Your task to perform on an android device: toggle improve location accuracy Image 0: 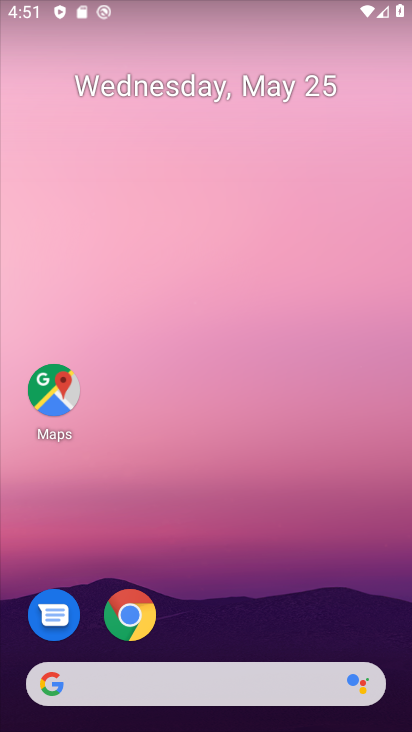
Step 0: press home button
Your task to perform on an android device: toggle improve location accuracy Image 1: 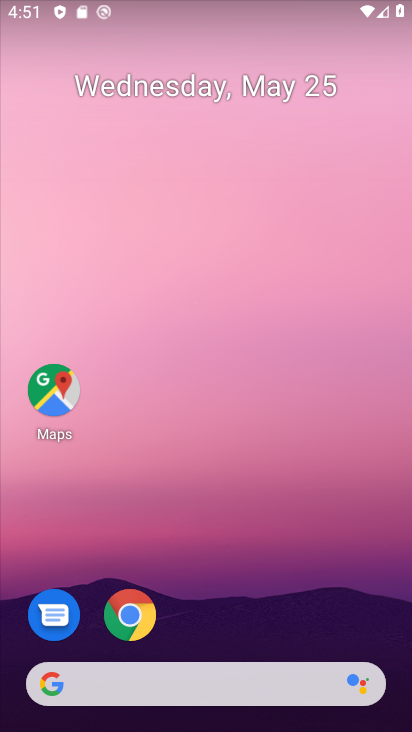
Step 1: drag from (295, 603) to (159, 40)
Your task to perform on an android device: toggle improve location accuracy Image 2: 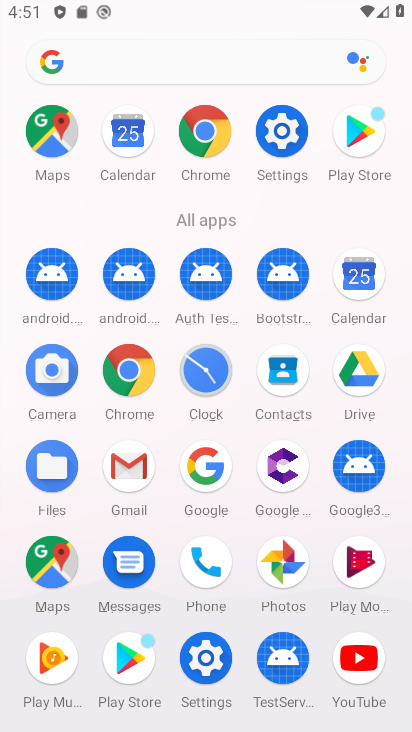
Step 2: click (203, 641)
Your task to perform on an android device: toggle improve location accuracy Image 3: 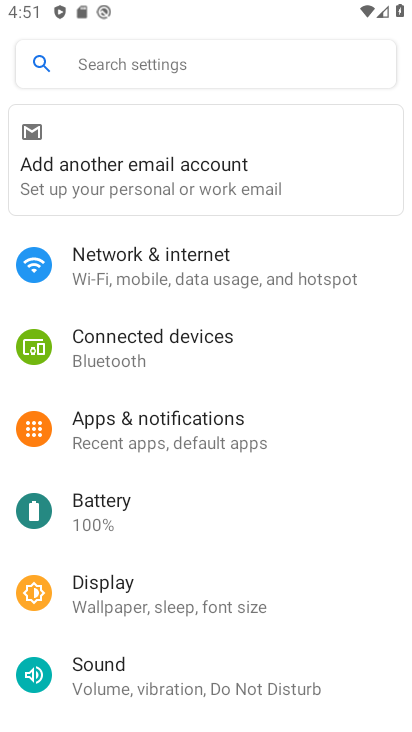
Step 3: drag from (200, 641) to (216, 398)
Your task to perform on an android device: toggle improve location accuracy Image 4: 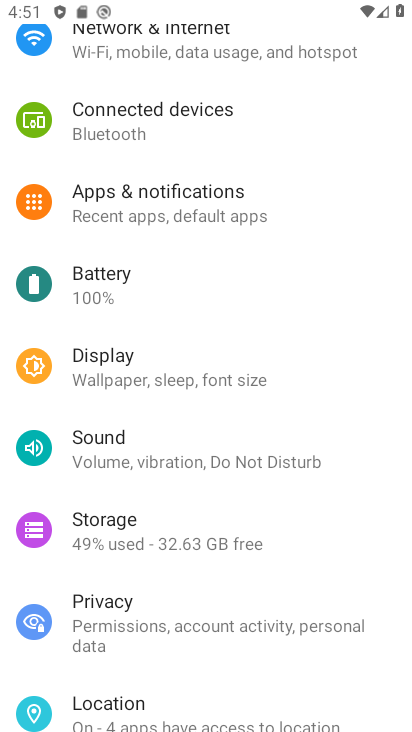
Step 4: click (198, 698)
Your task to perform on an android device: toggle improve location accuracy Image 5: 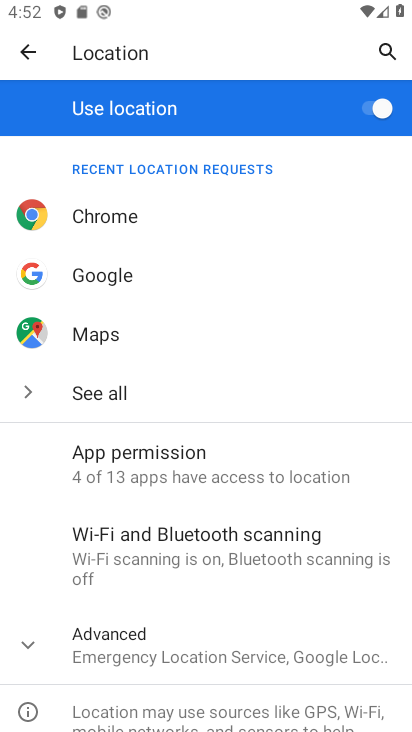
Step 5: click (250, 648)
Your task to perform on an android device: toggle improve location accuracy Image 6: 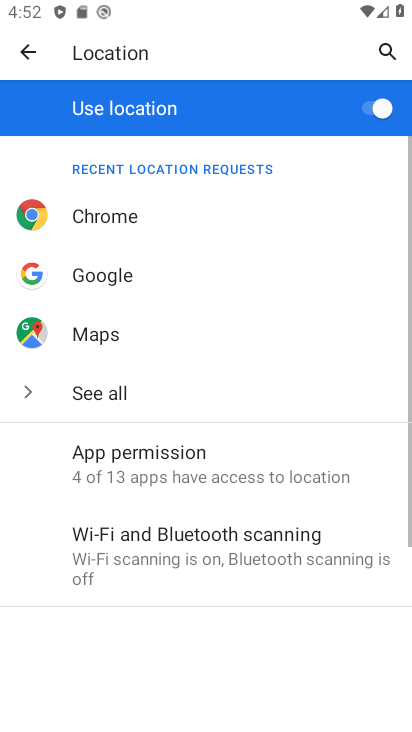
Step 6: drag from (250, 648) to (209, 292)
Your task to perform on an android device: toggle improve location accuracy Image 7: 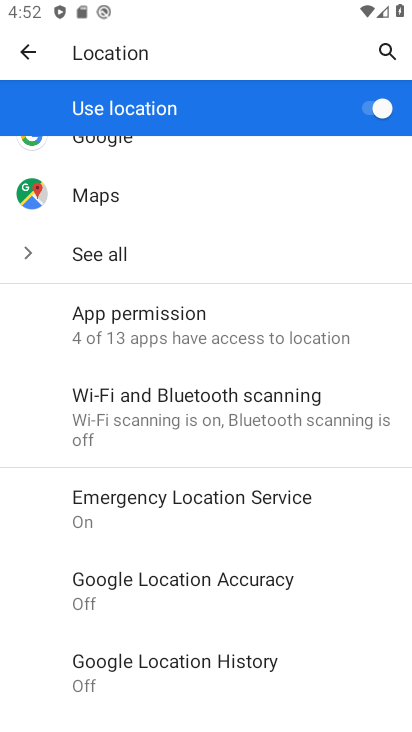
Step 7: click (254, 580)
Your task to perform on an android device: toggle improve location accuracy Image 8: 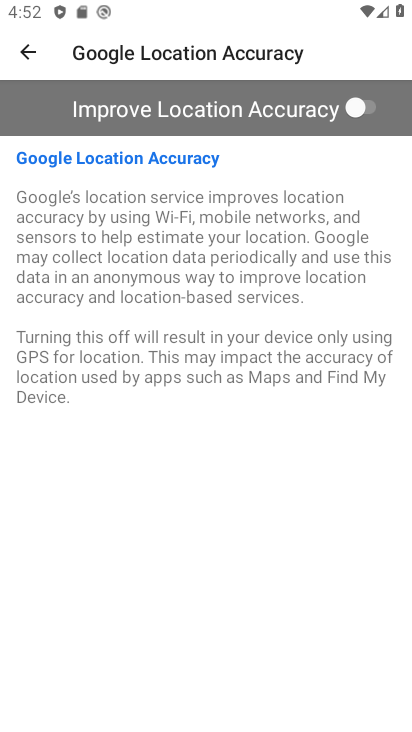
Step 8: click (297, 129)
Your task to perform on an android device: toggle improve location accuracy Image 9: 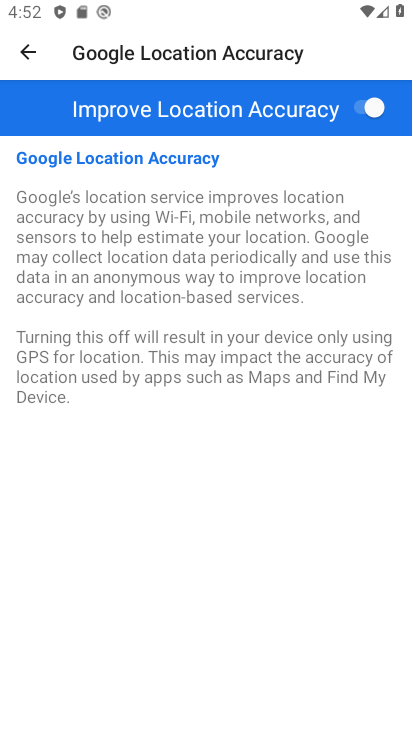
Step 9: task complete